Your task to perform on an android device: Open sound settings Image 0: 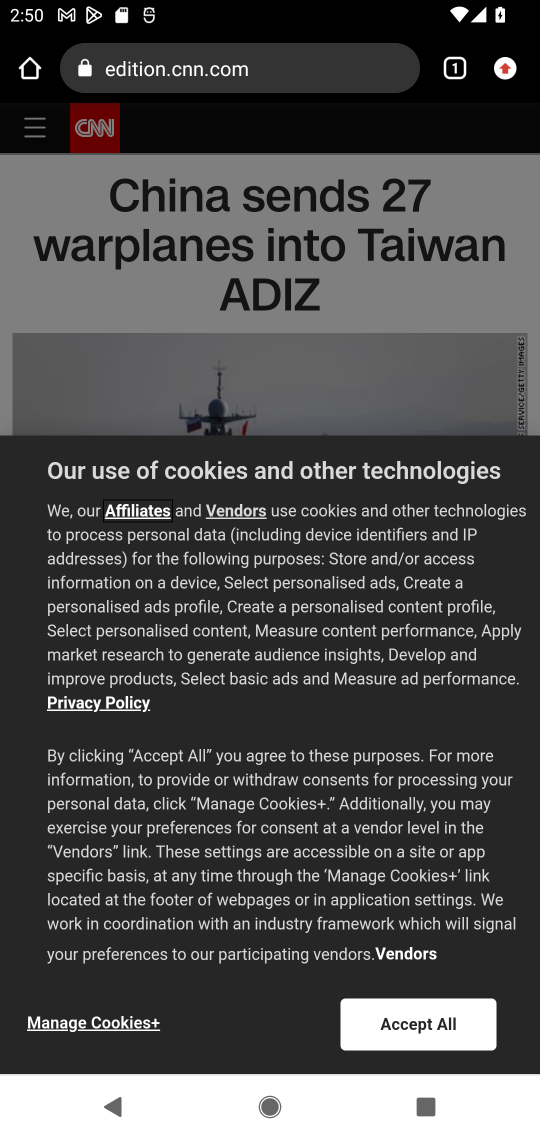
Step 0: press home button
Your task to perform on an android device: Open sound settings Image 1: 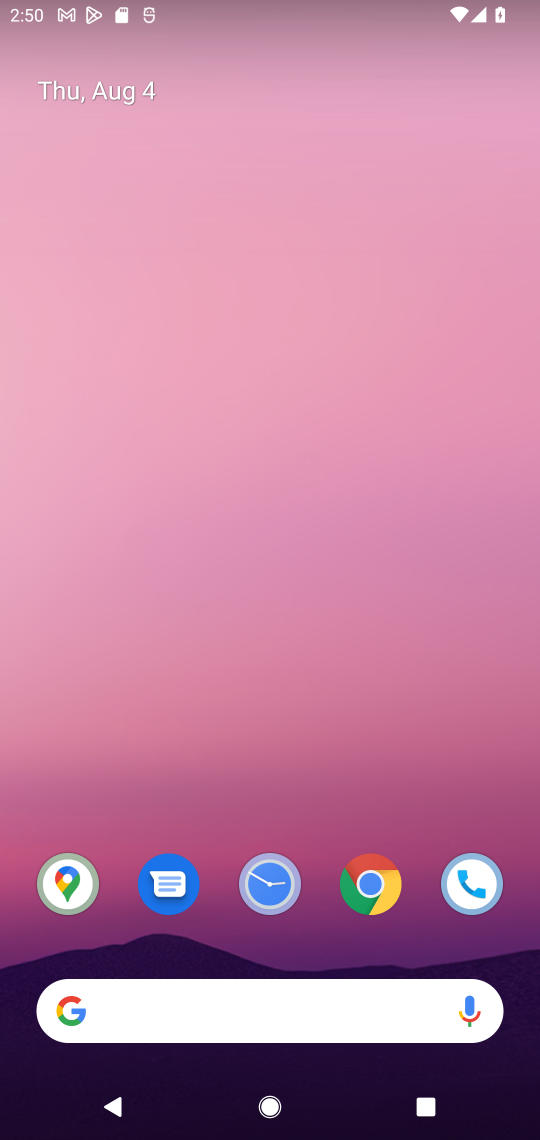
Step 1: drag from (222, 954) to (223, 275)
Your task to perform on an android device: Open sound settings Image 2: 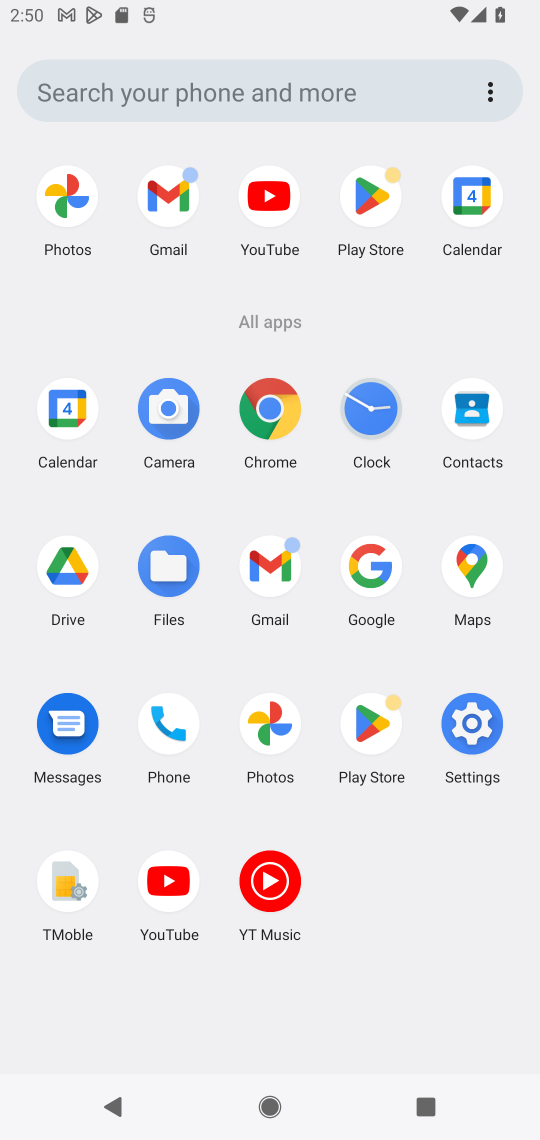
Step 2: click (460, 717)
Your task to perform on an android device: Open sound settings Image 3: 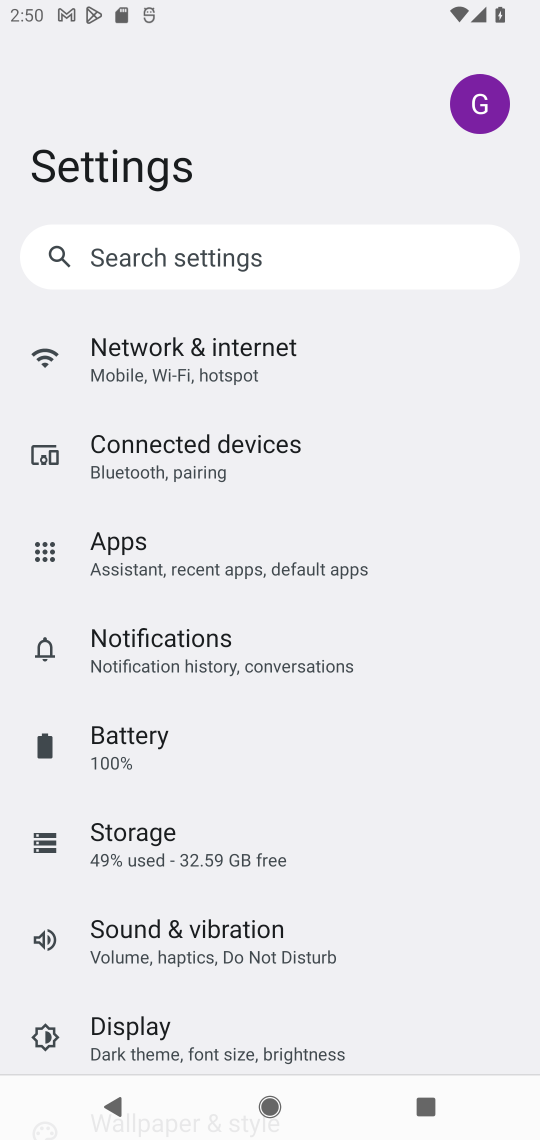
Step 3: click (213, 935)
Your task to perform on an android device: Open sound settings Image 4: 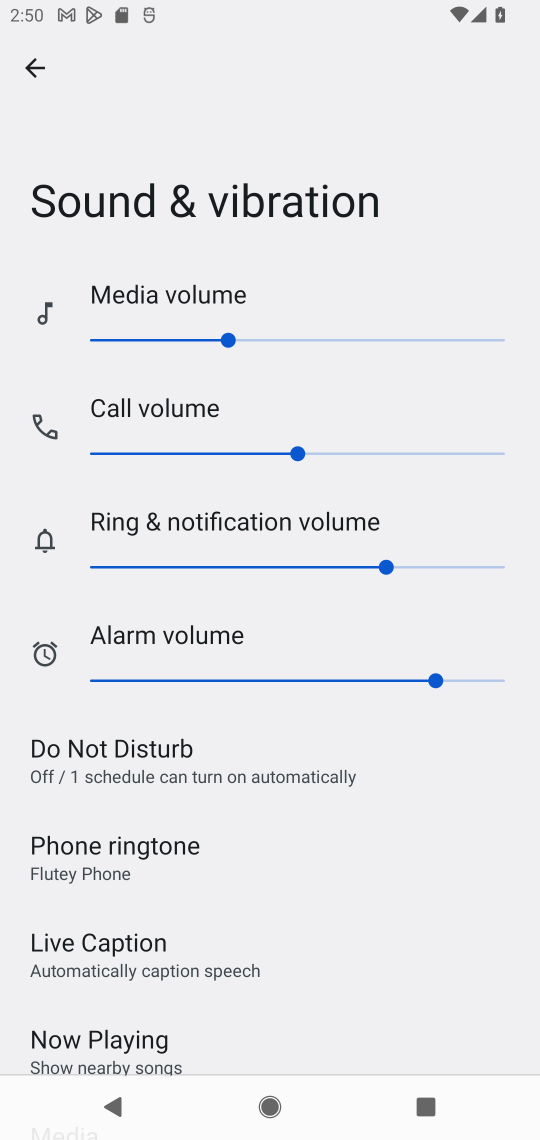
Step 4: task complete